Your task to perform on an android device: clear history in the chrome app Image 0: 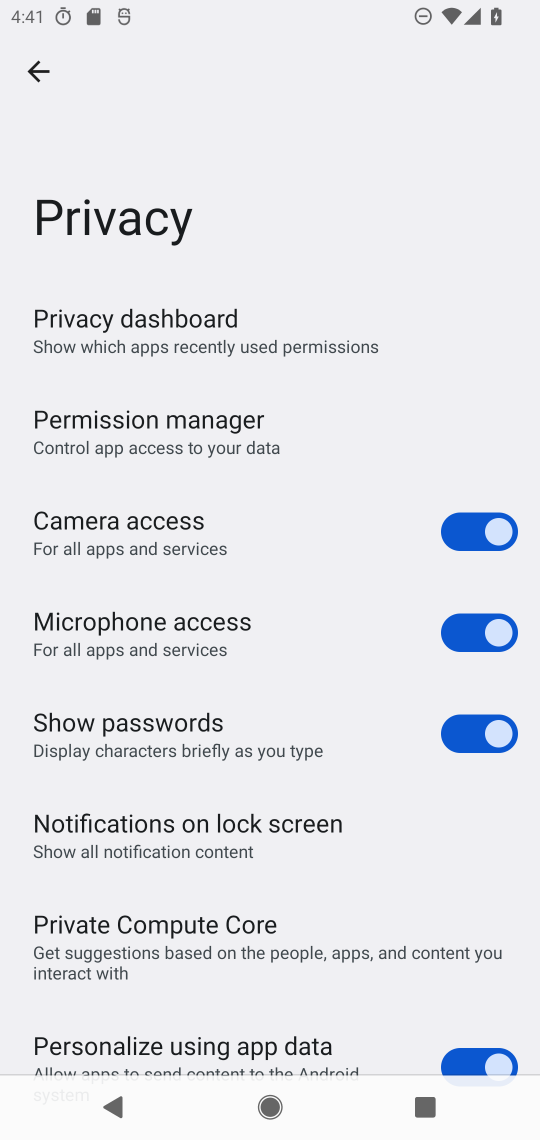
Step 0: press home button
Your task to perform on an android device: clear history in the chrome app Image 1: 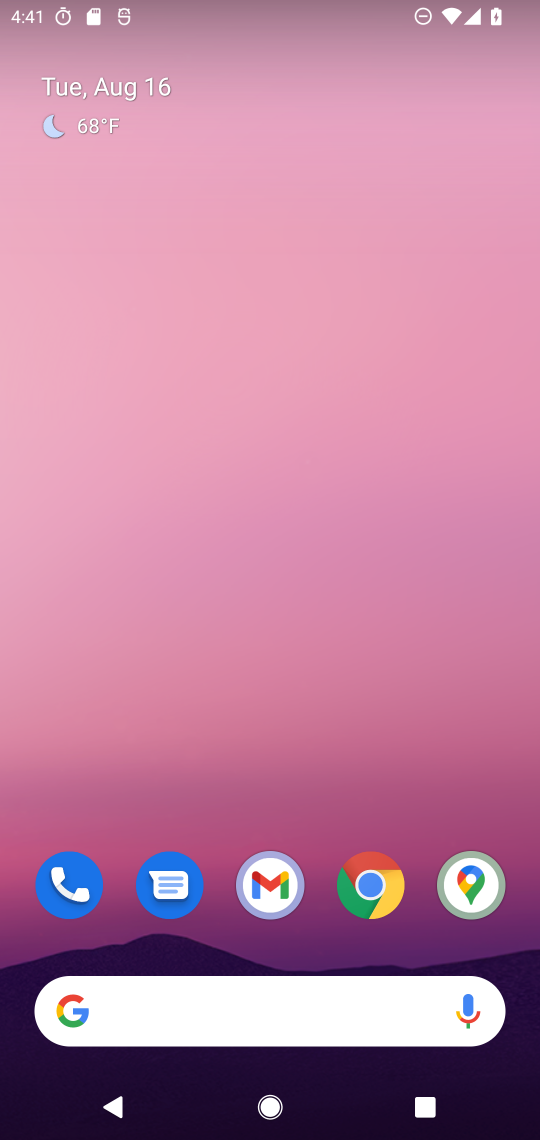
Step 1: drag from (269, 816) to (275, 108)
Your task to perform on an android device: clear history in the chrome app Image 2: 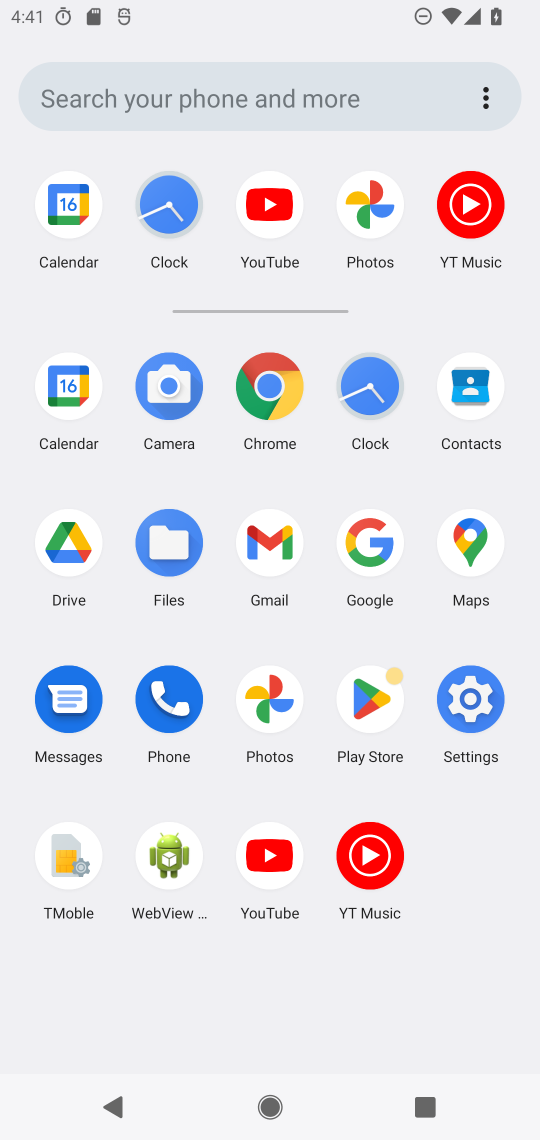
Step 2: click (279, 356)
Your task to perform on an android device: clear history in the chrome app Image 3: 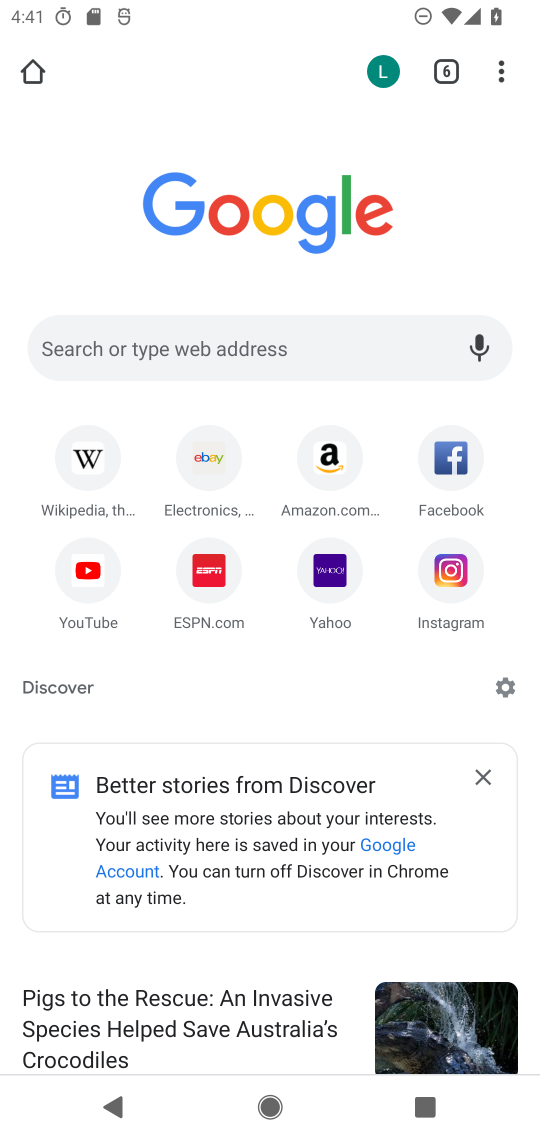
Step 3: click (507, 68)
Your task to perform on an android device: clear history in the chrome app Image 4: 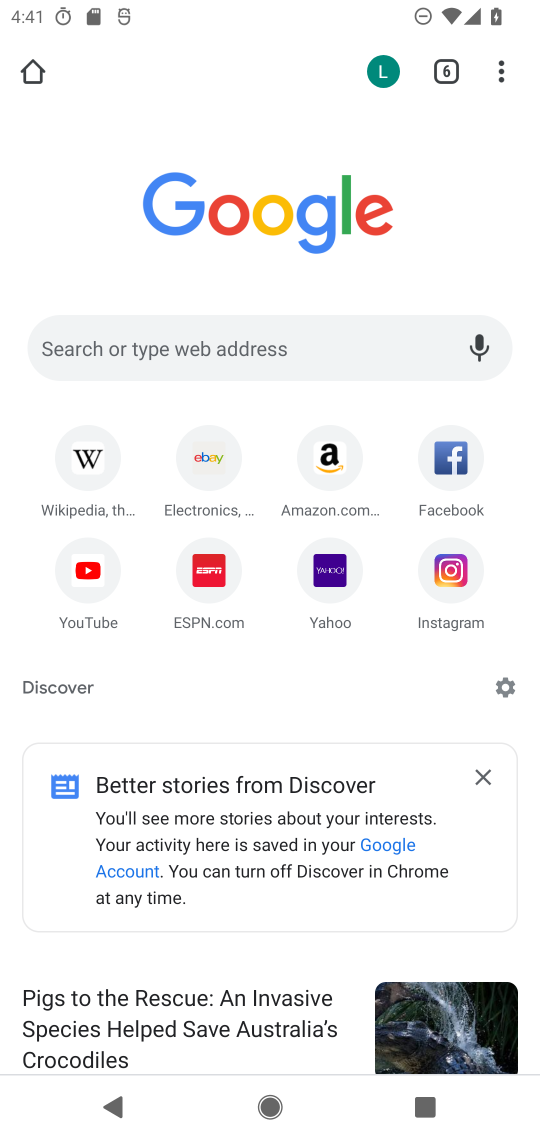
Step 4: click (503, 65)
Your task to perform on an android device: clear history in the chrome app Image 5: 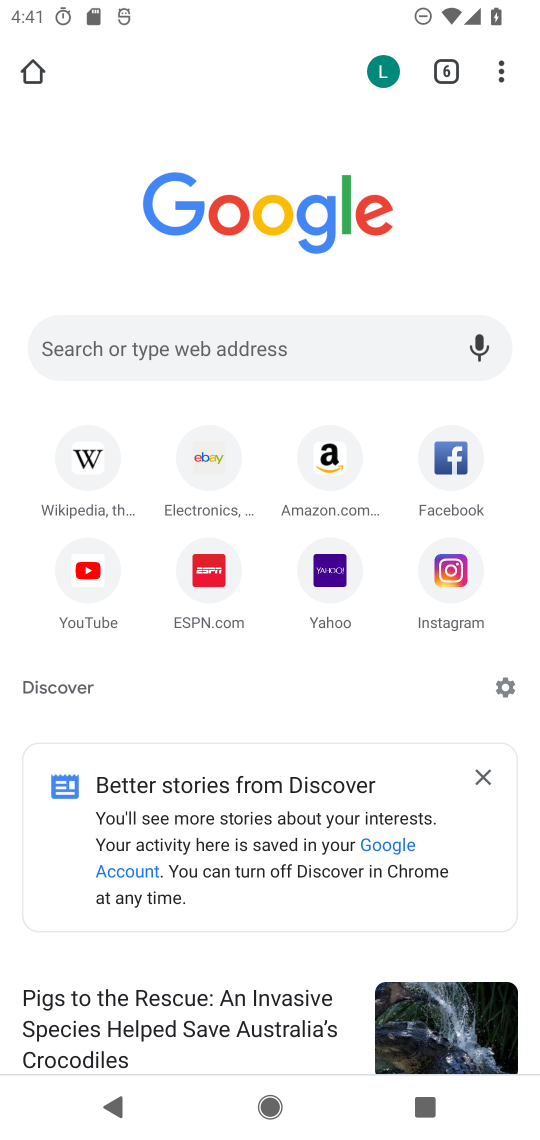
Step 5: click (503, 67)
Your task to perform on an android device: clear history in the chrome app Image 6: 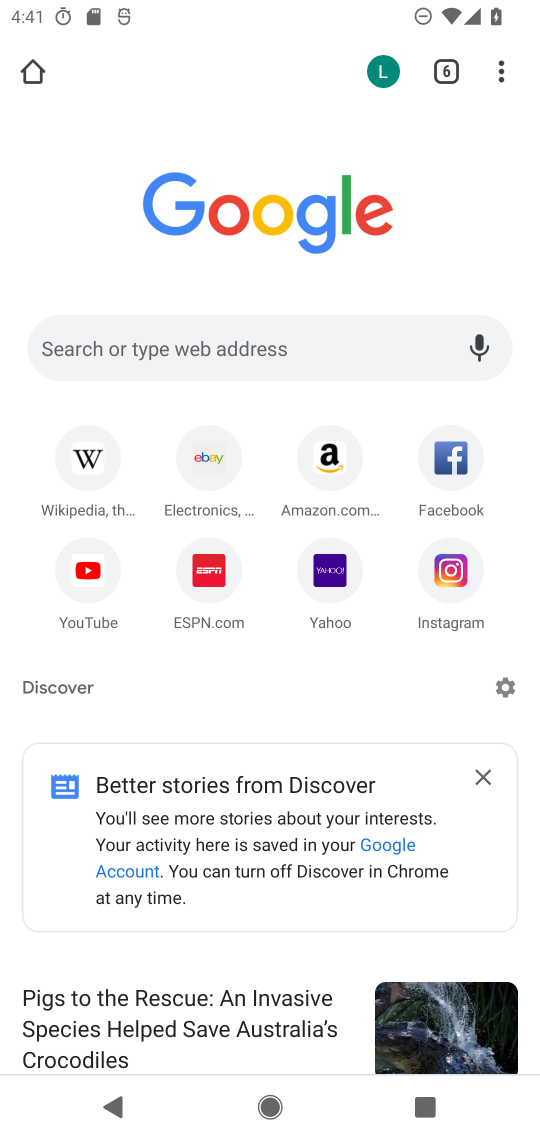
Step 6: click (500, 64)
Your task to perform on an android device: clear history in the chrome app Image 7: 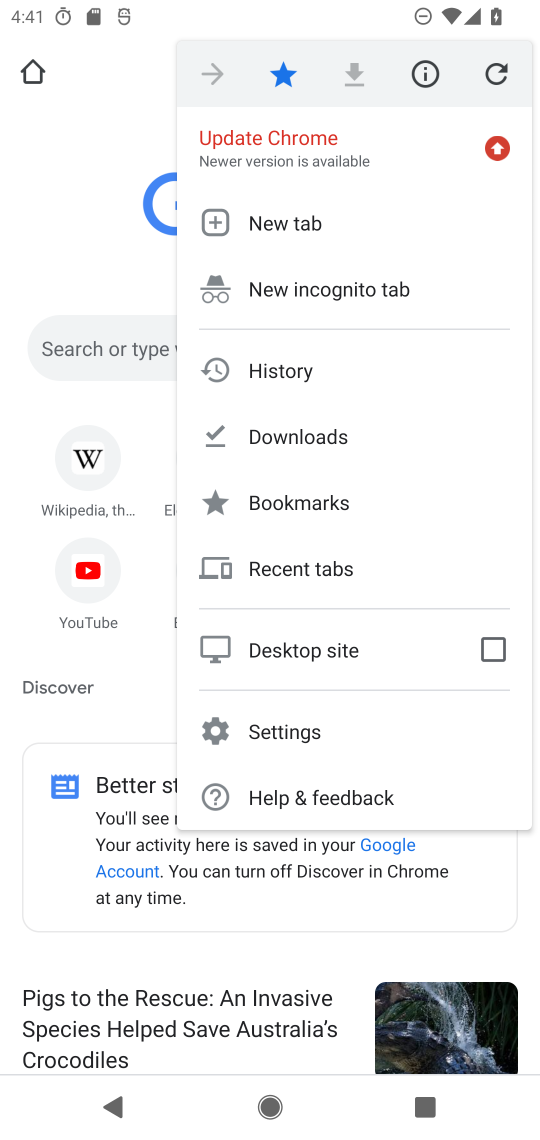
Step 7: click (316, 374)
Your task to perform on an android device: clear history in the chrome app Image 8: 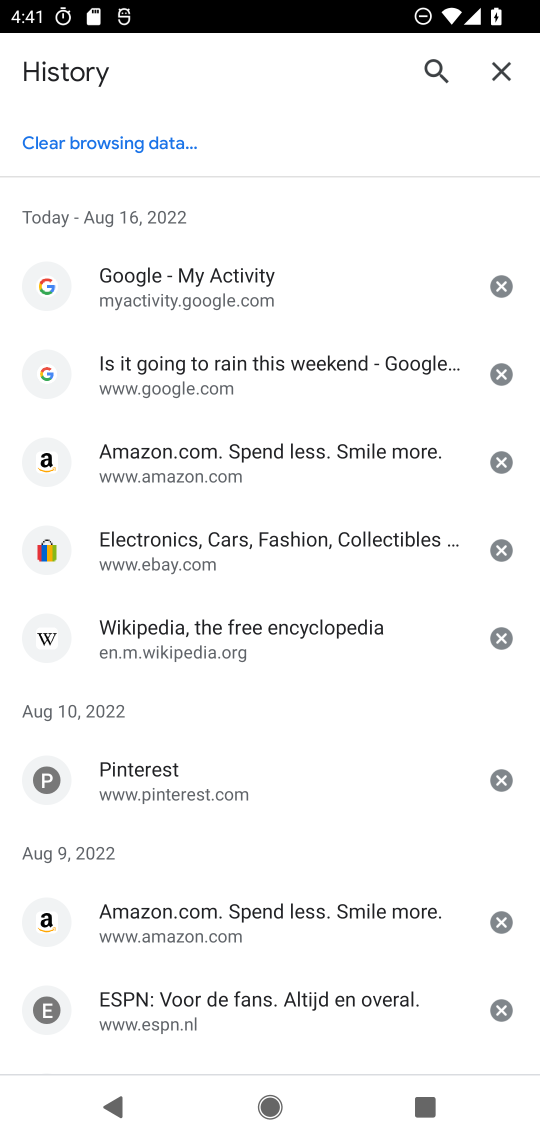
Step 8: click (104, 137)
Your task to perform on an android device: clear history in the chrome app Image 9: 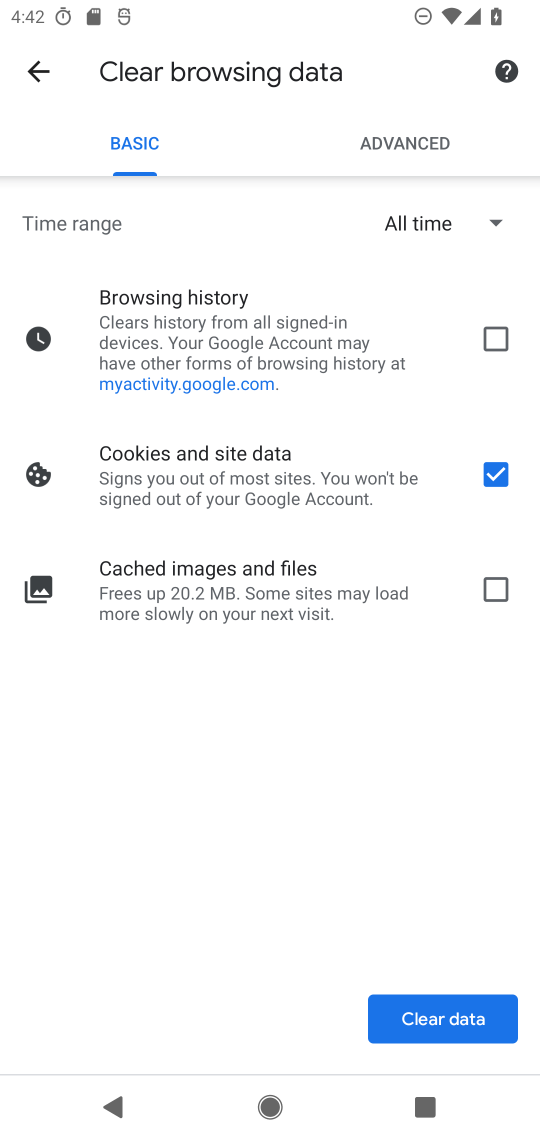
Step 9: click (476, 313)
Your task to perform on an android device: clear history in the chrome app Image 10: 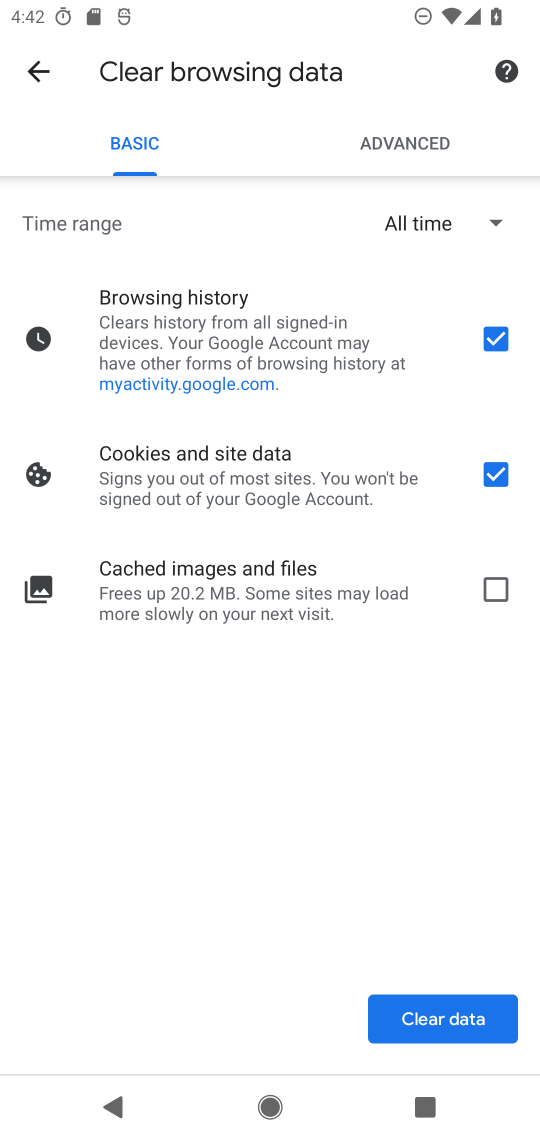
Step 10: click (492, 570)
Your task to perform on an android device: clear history in the chrome app Image 11: 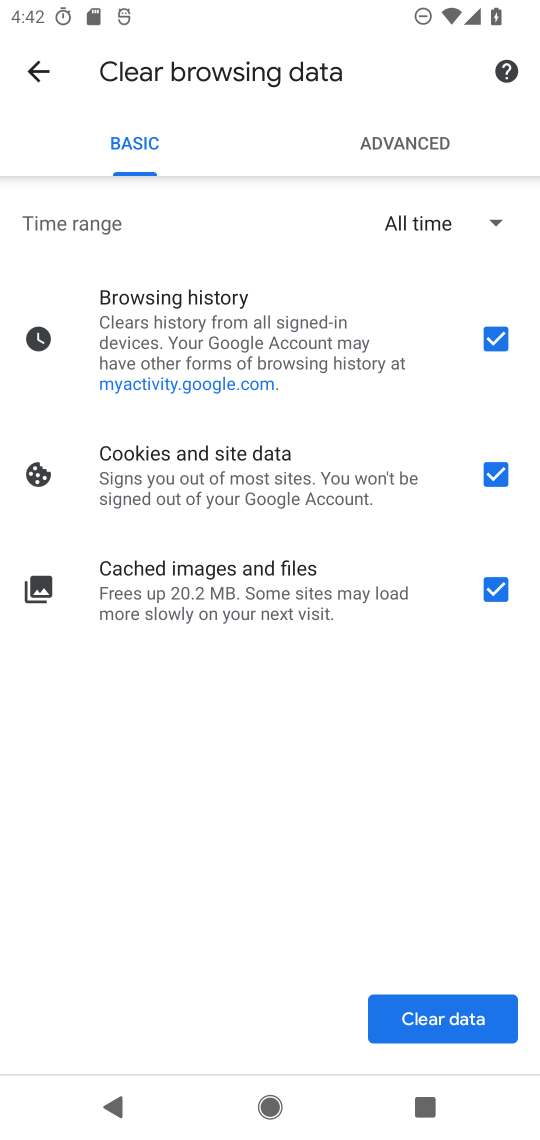
Step 11: click (442, 1011)
Your task to perform on an android device: clear history in the chrome app Image 12: 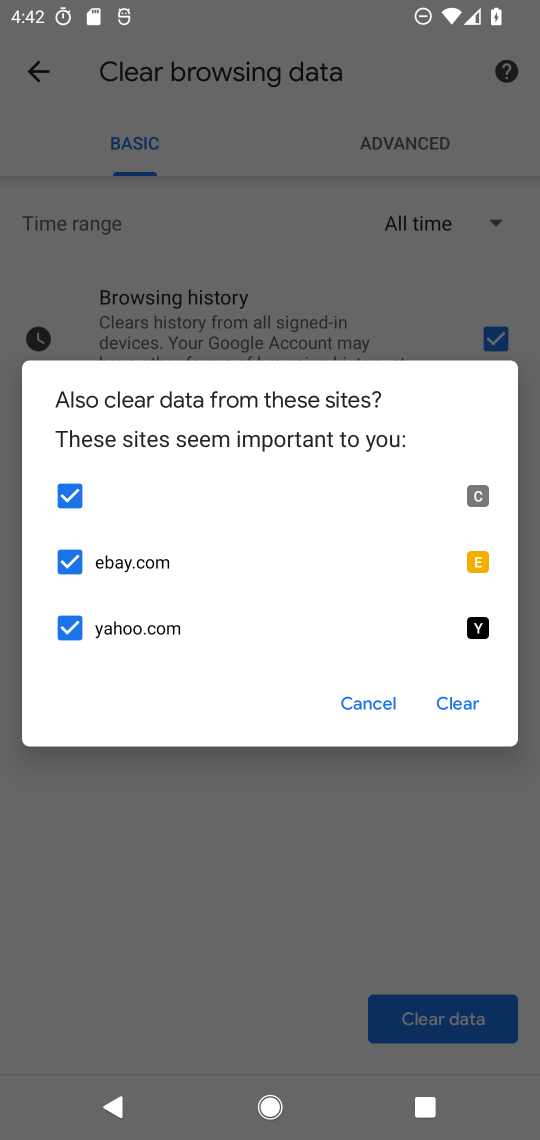
Step 12: click (466, 701)
Your task to perform on an android device: clear history in the chrome app Image 13: 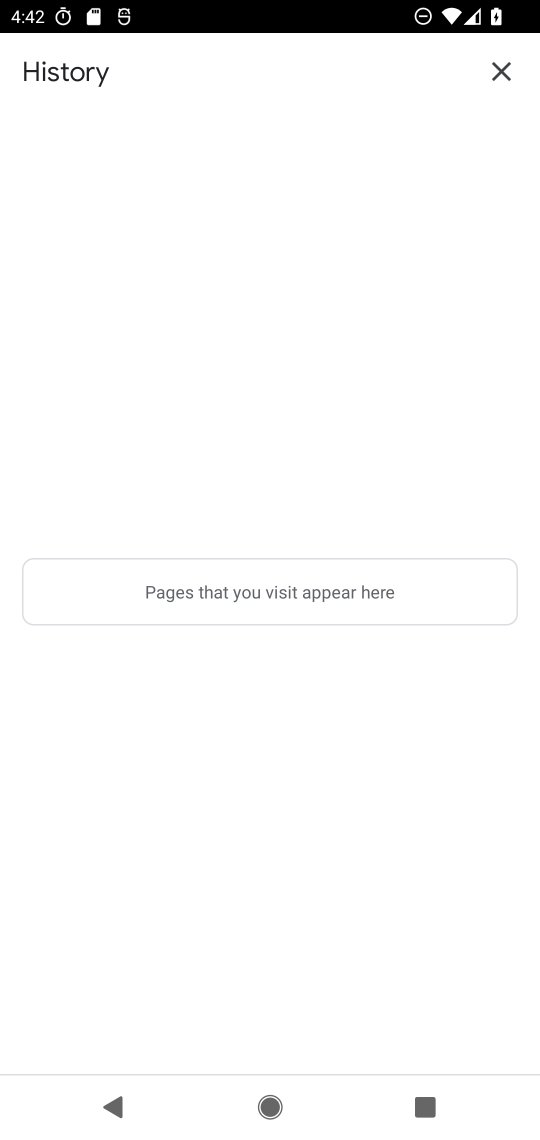
Step 13: task complete